Your task to perform on an android device: Search for "beats solo 3" on newegg.com, select the first entry, add it to the cart, then select checkout. Image 0: 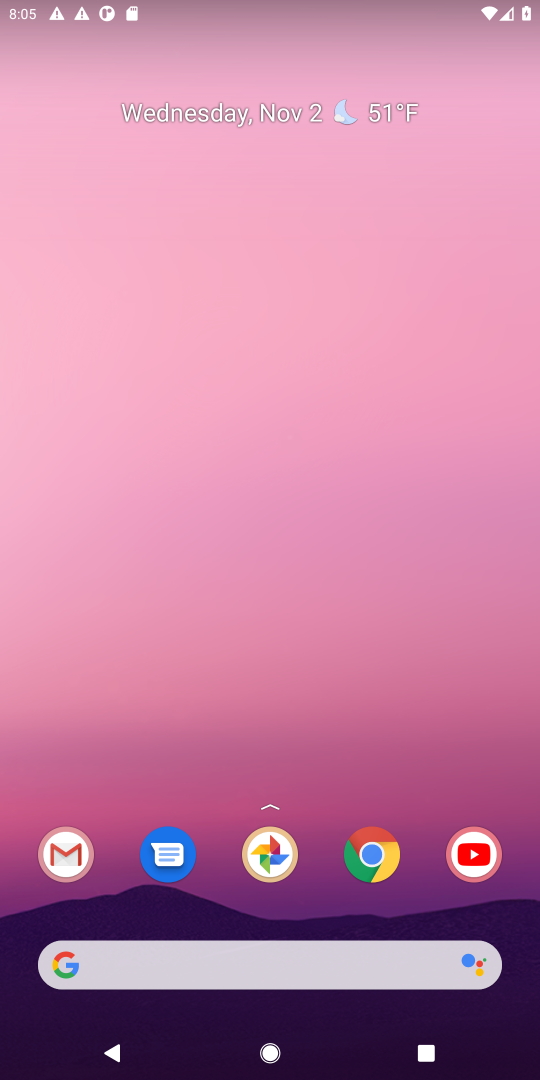
Step 0: click (374, 852)
Your task to perform on an android device: Search for "beats solo 3" on newegg.com, select the first entry, add it to the cart, then select checkout. Image 1: 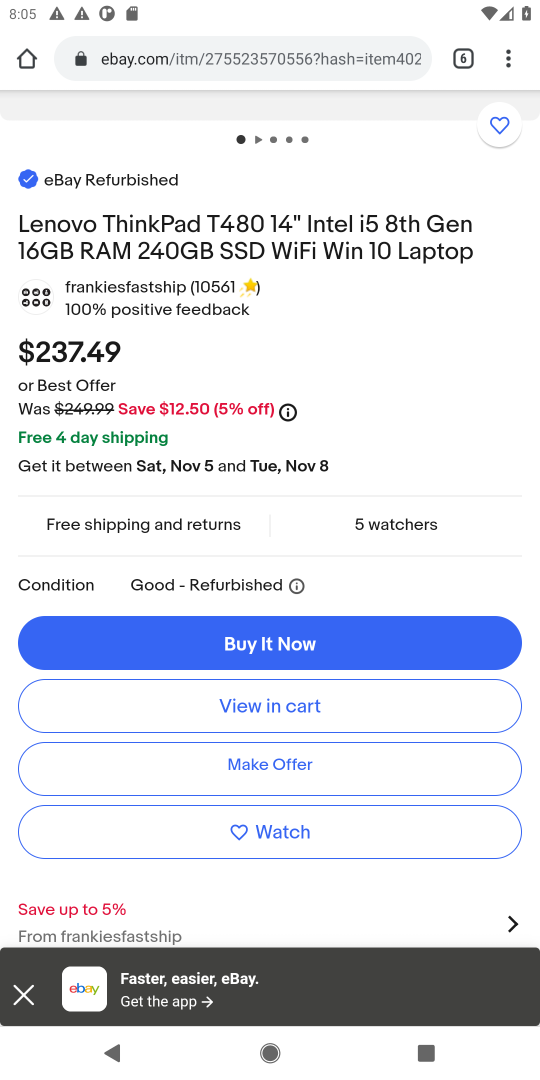
Step 1: click (459, 59)
Your task to perform on an android device: Search for "beats solo 3" on newegg.com, select the first entry, add it to the cart, then select checkout. Image 2: 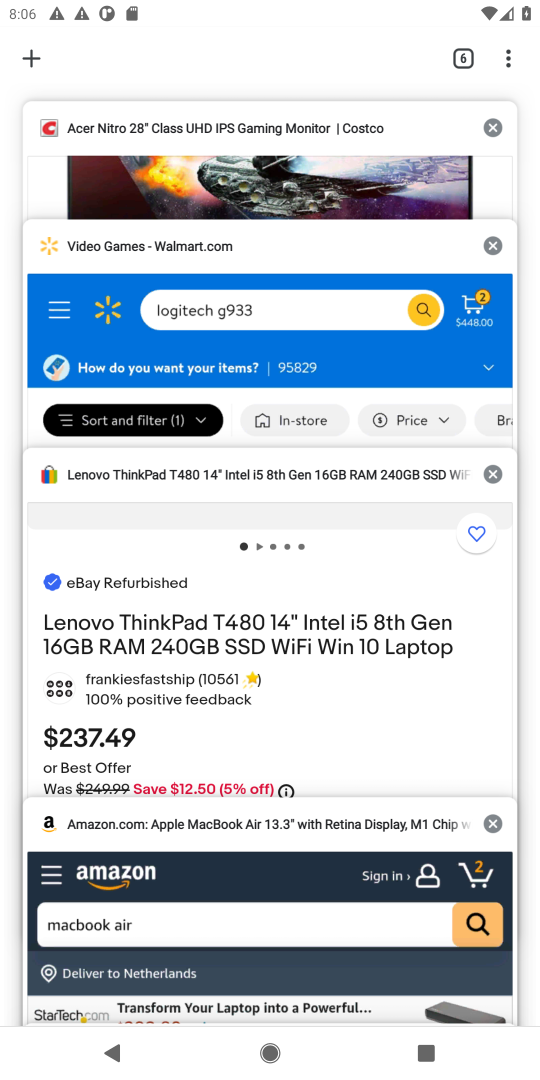
Step 2: drag from (323, 883) to (352, 266)
Your task to perform on an android device: Search for "beats solo 3" on newegg.com, select the first entry, add it to the cart, then select checkout. Image 3: 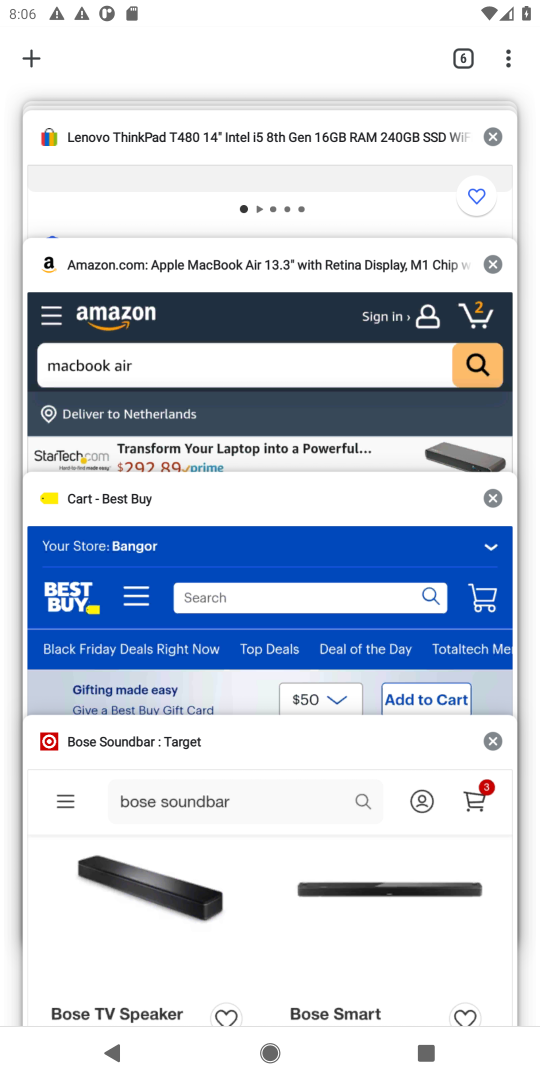
Step 3: click (285, 775)
Your task to perform on an android device: Search for "beats solo 3" on newegg.com, select the first entry, add it to the cart, then select checkout. Image 4: 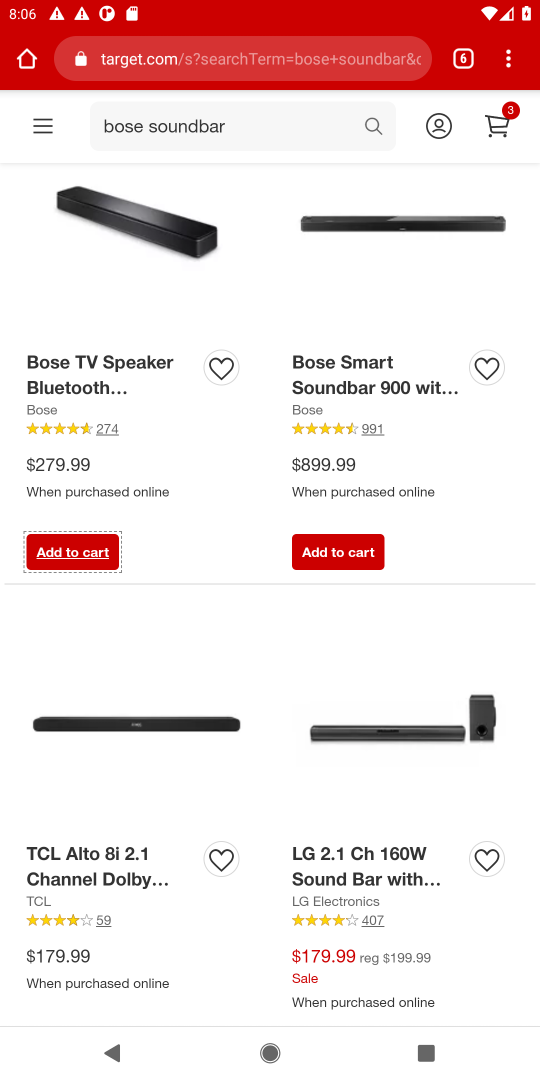
Step 4: click (248, 123)
Your task to perform on an android device: Search for "beats solo 3" on newegg.com, select the first entry, add it to the cart, then select checkout. Image 5: 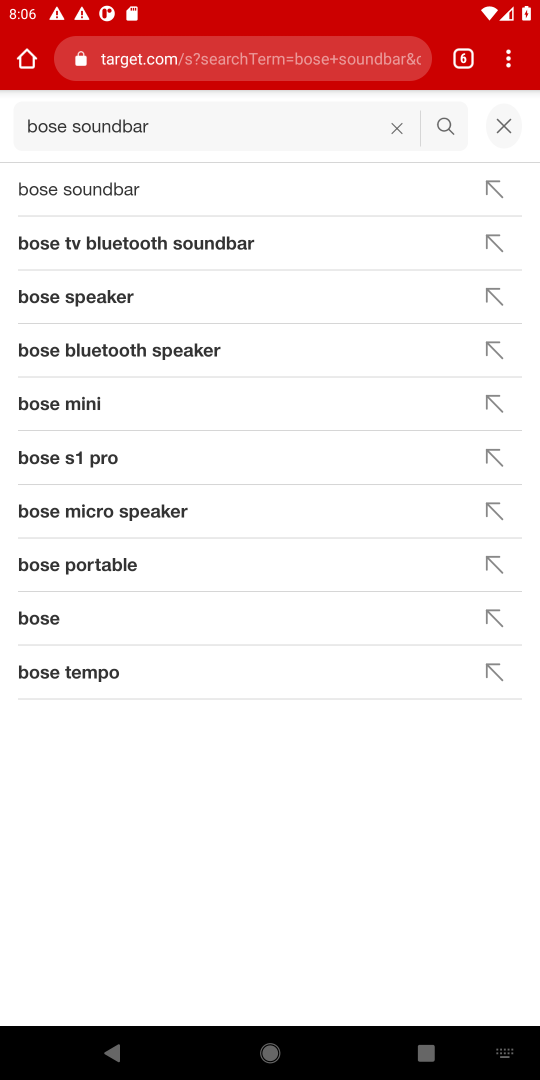
Step 5: click (394, 129)
Your task to perform on an android device: Search for "beats solo 3" on newegg.com, select the first entry, add it to the cart, then select checkout. Image 6: 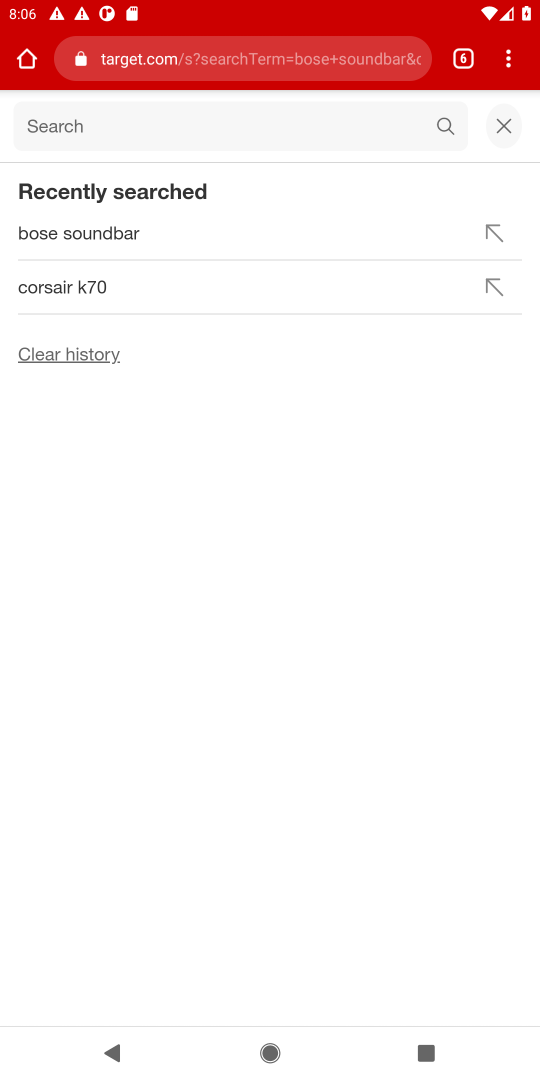
Step 6: type "beats solo 3"
Your task to perform on an android device: Search for "beats solo 3" on newegg.com, select the first entry, add it to the cart, then select checkout. Image 7: 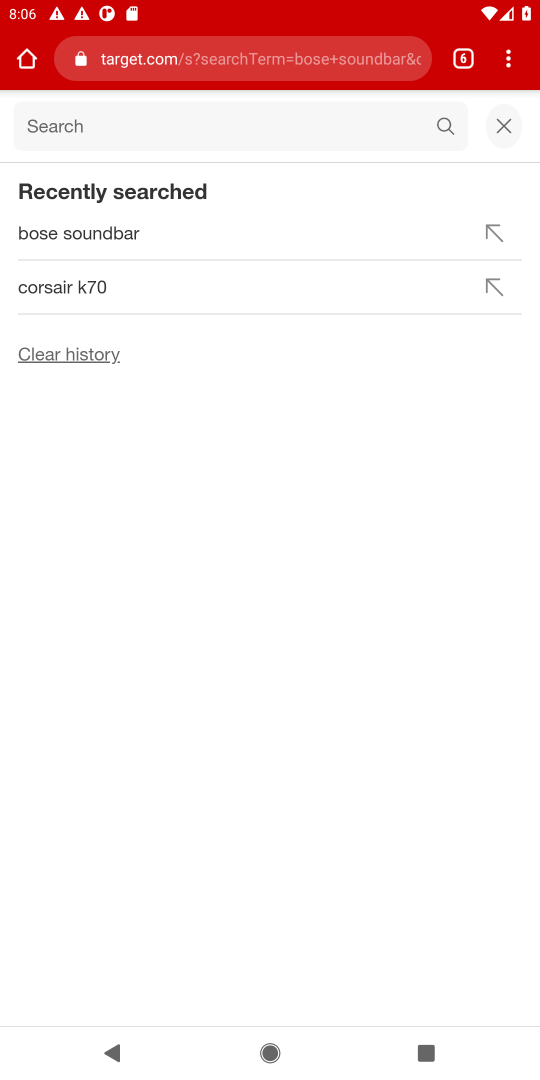
Step 7: click (297, 140)
Your task to perform on an android device: Search for "beats solo 3" on newegg.com, select the first entry, add it to the cart, then select checkout. Image 8: 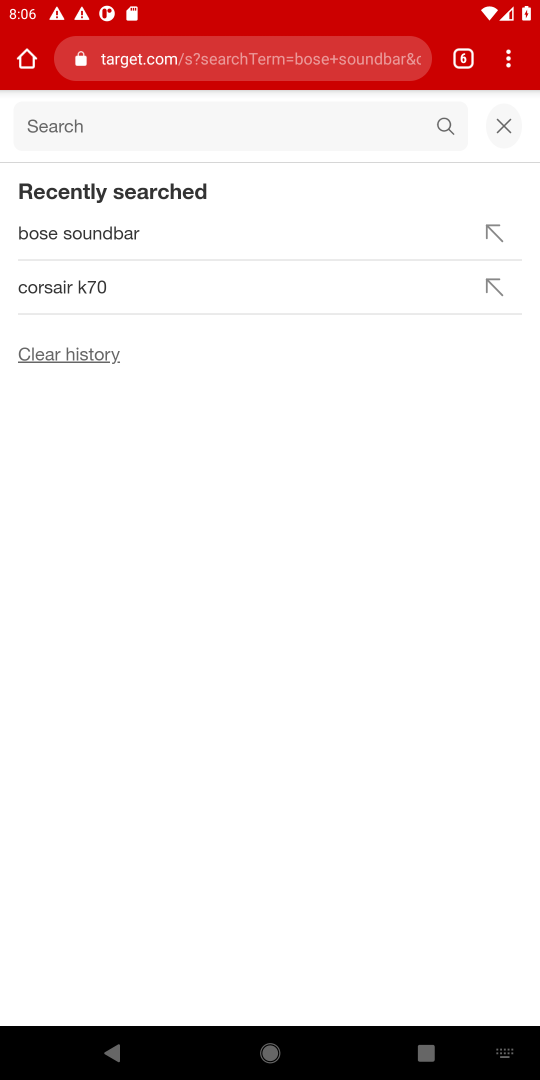
Step 8: type "beats solo 3"
Your task to perform on an android device: Search for "beats solo 3" on newegg.com, select the first entry, add it to the cart, then select checkout. Image 9: 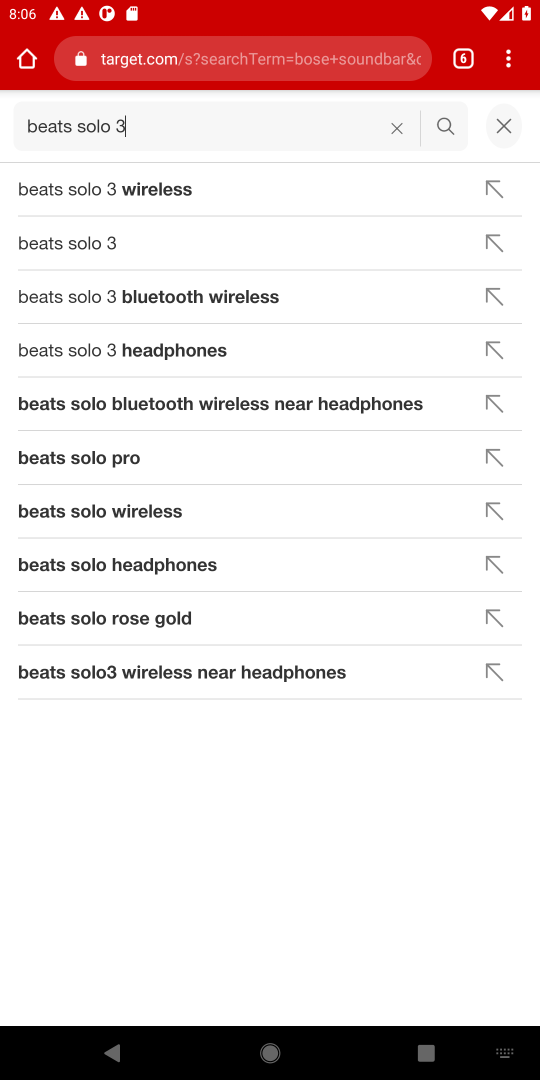
Step 9: click (139, 189)
Your task to perform on an android device: Search for "beats solo 3" on newegg.com, select the first entry, add it to the cart, then select checkout. Image 10: 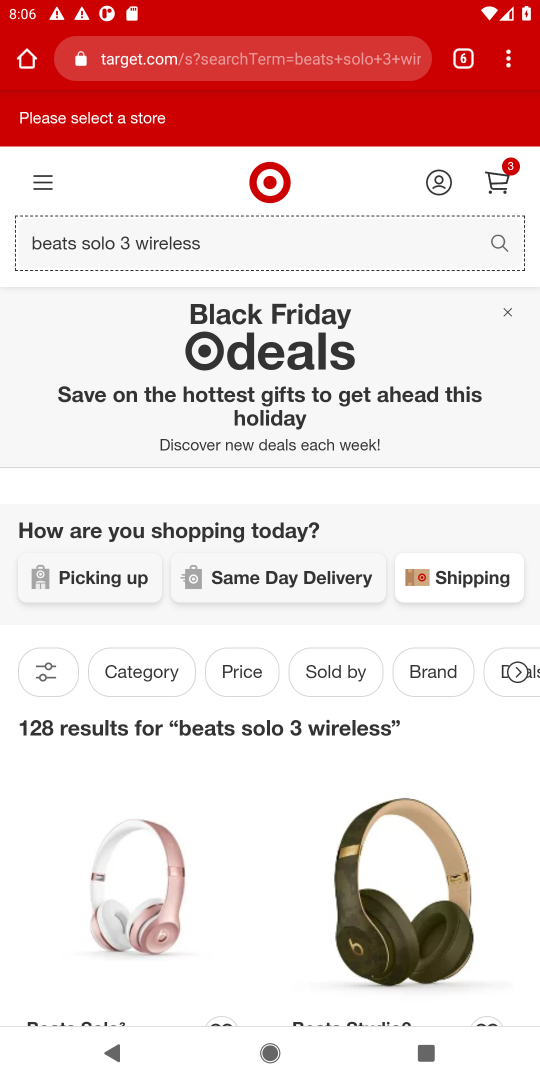
Step 10: drag from (248, 936) to (301, 373)
Your task to perform on an android device: Search for "beats solo 3" on newegg.com, select the first entry, add it to the cart, then select checkout. Image 11: 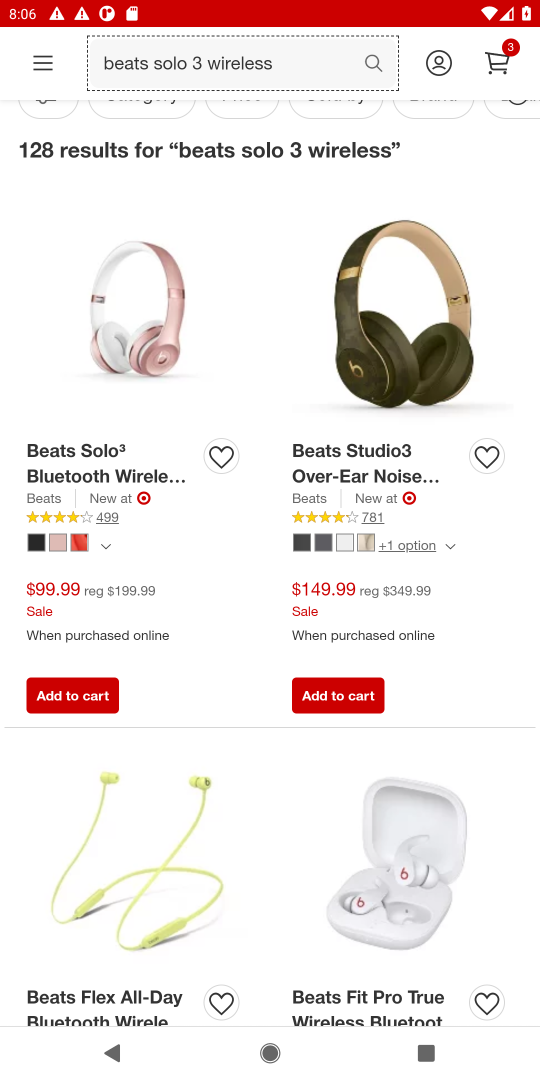
Step 11: click (76, 696)
Your task to perform on an android device: Search for "beats solo 3" on newegg.com, select the first entry, add it to the cart, then select checkout. Image 12: 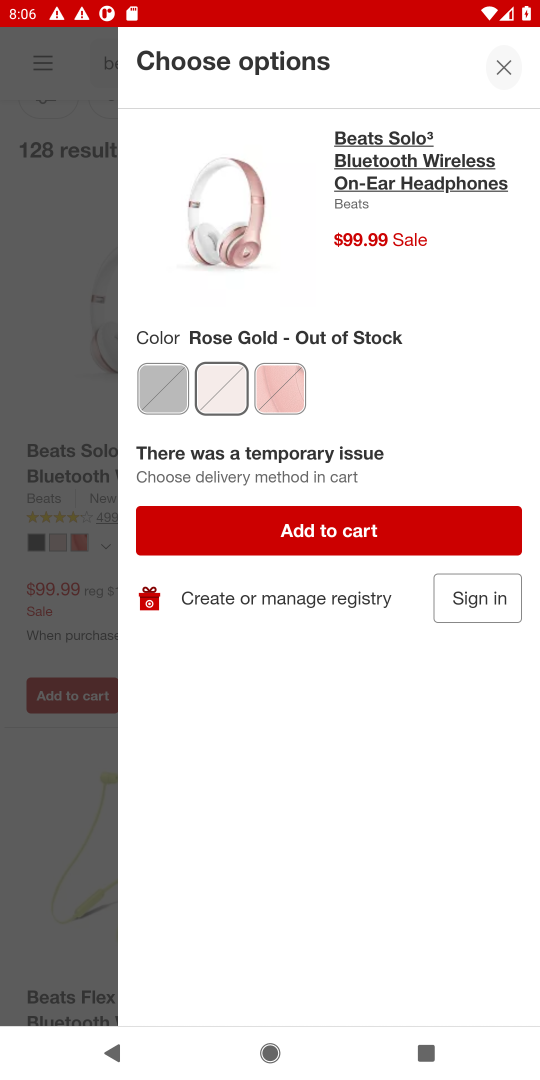
Step 12: click (349, 543)
Your task to perform on an android device: Search for "beats solo 3" on newegg.com, select the first entry, add it to the cart, then select checkout. Image 13: 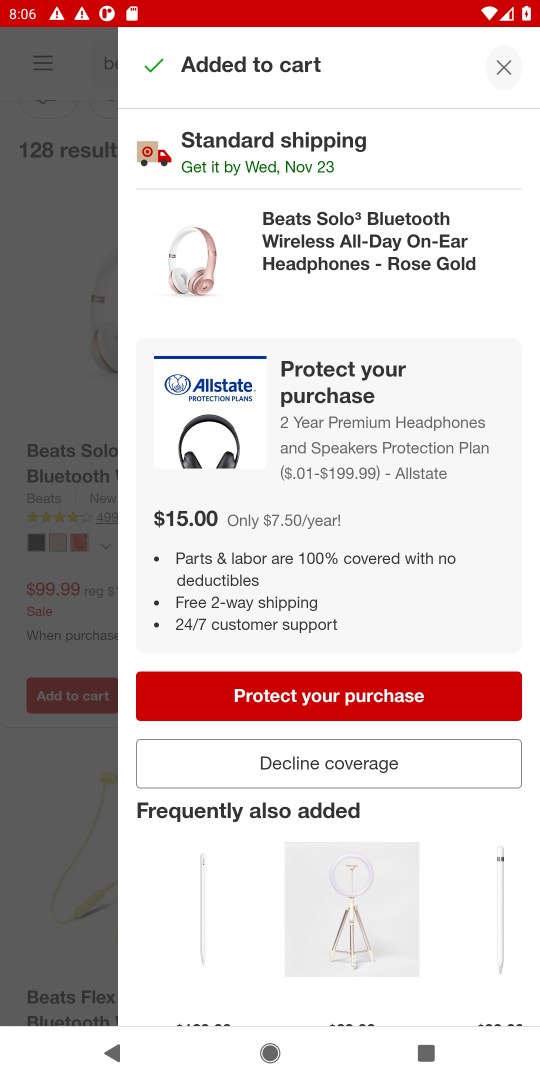
Step 13: task complete